Your task to perform on an android device: find which apps use the phone's location Image 0: 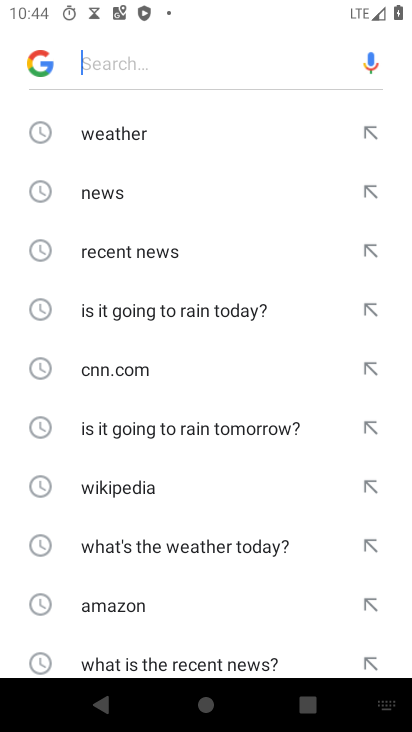
Step 0: press home button
Your task to perform on an android device: find which apps use the phone's location Image 1: 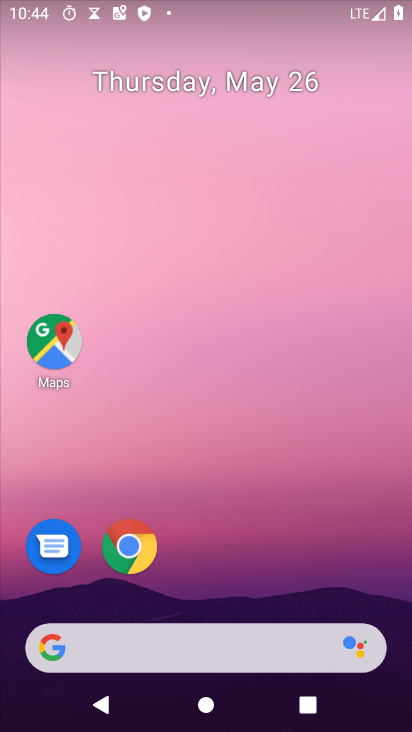
Step 1: drag from (377, 545) to (358, 147)
Your task to perform on an android device: find which apps use the phone's location Image 2: 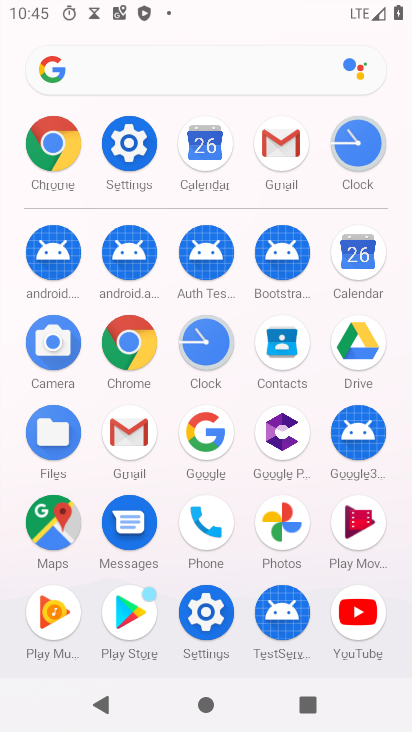
Step 2: click (194, 615)
Your task to perform on an android device: find which apps use the phone's location Image 3: 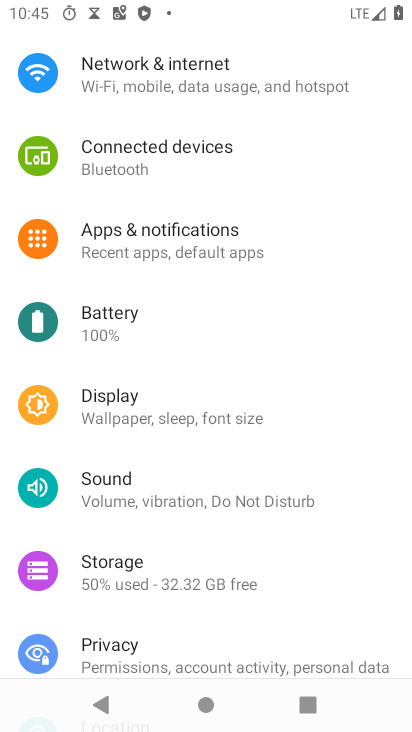
Step 3: drag from (191, 620) to (296, 249)
Your task to perform on an android device: find which apps use the phone's location Image 4: 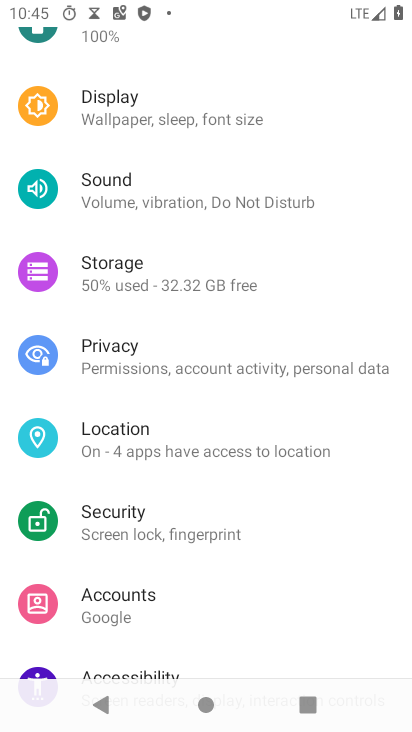
Step 4: click (220, 441)
Your task to perform on an android device: find which apps use the phone's location Image 5: 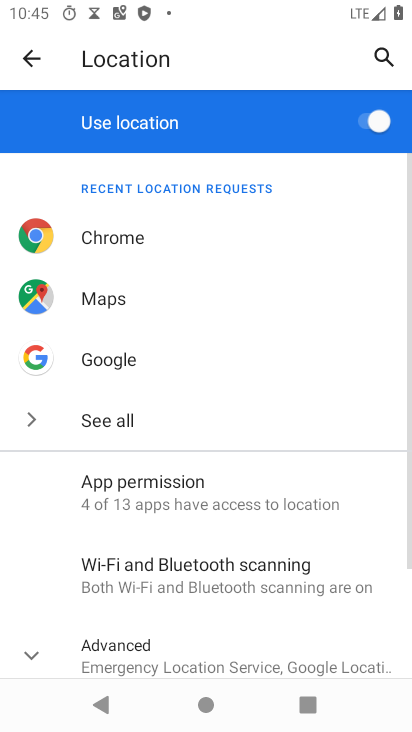
Step 5: task complete